Your task to perform on an android device: Do I have any events this weekend? Image 0: 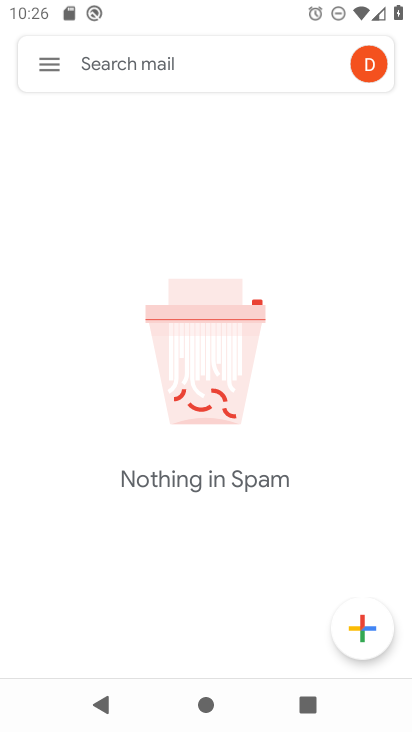
Step 0: press home button
Your task to perform on an android device: Do I have any events this weekend? Image 1: 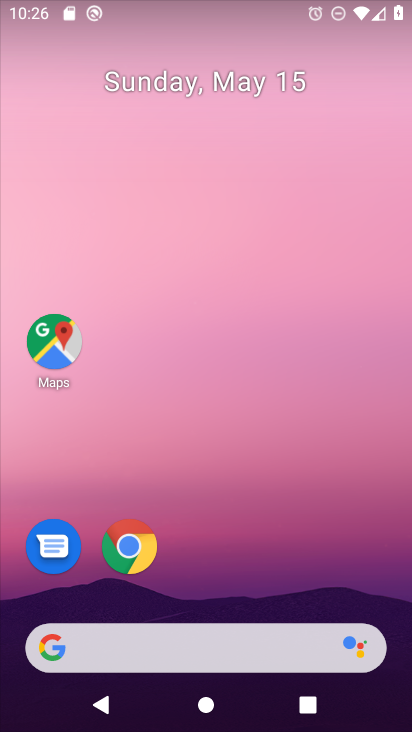
Step 1: drag from (310, 478) to (359, 85)
Your task to perform on an android device: Do I have any events this weekend? Image 2: 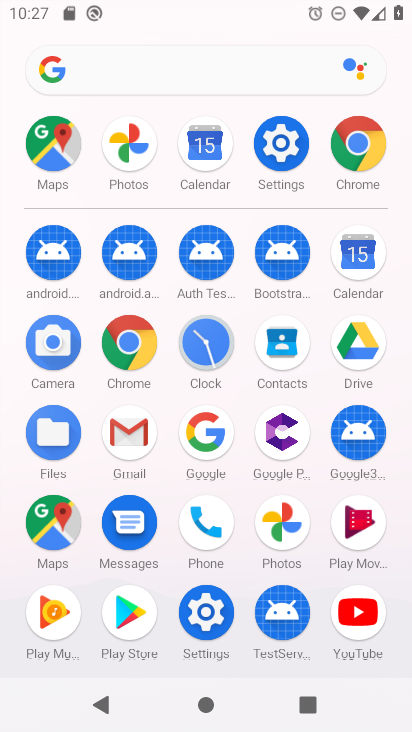
Step 2: click (359, 248)
Your task to perform on an android device: Do I have any events this weekend? Image 3: 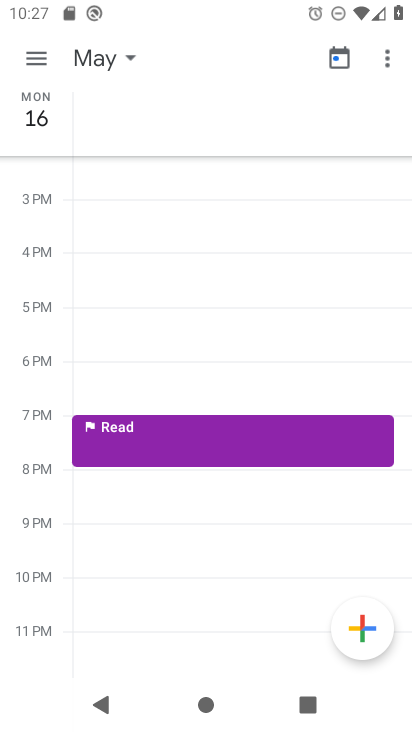
Step 3: click (44, 53)
Your task to perform on an android device: Do I have any events this weekend? Image 4: 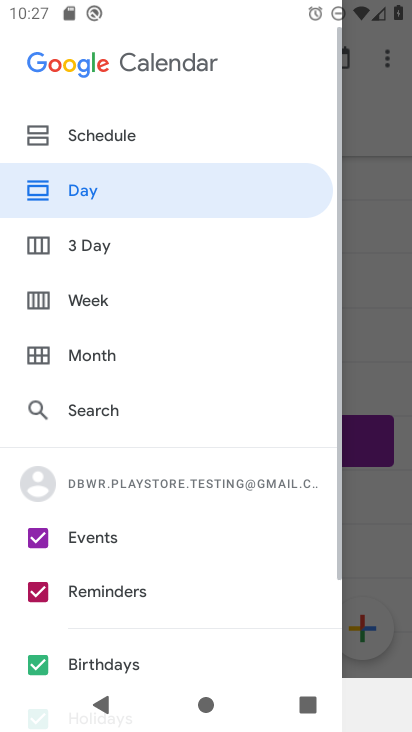
Step 4: click (99, 299)
Your task to perform on an android device: Do I have any events this weekend? Image 5: 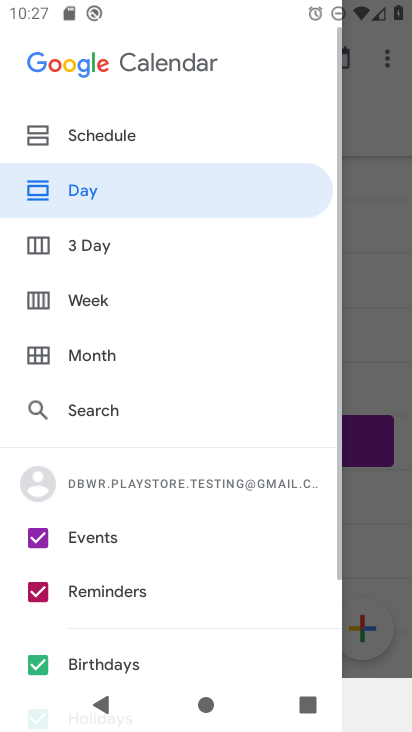
Step 5: click (93, 247)
Your task to perform on an android device: Do I have any events this weekend? Image 6: 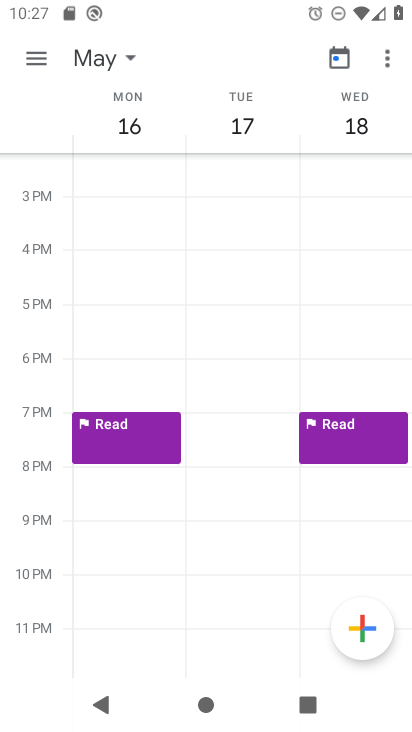
Step 6: task complete